Your task to perform on an android device: set an alarm Image 0: 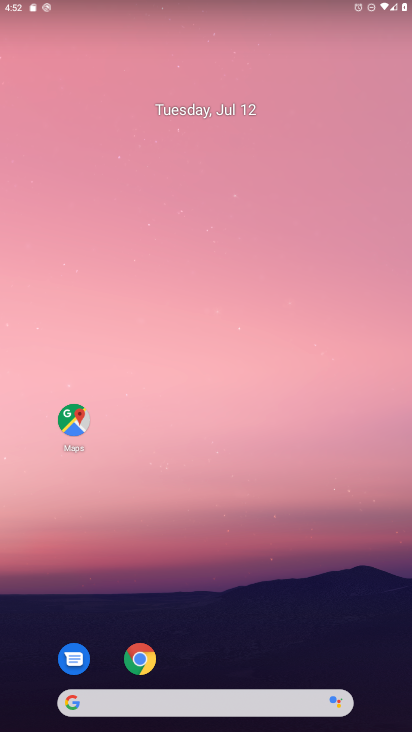
Step 0: drag from (260, 256) to (254, 3)
Your task to perform on an android device: set an alarm Image 1: 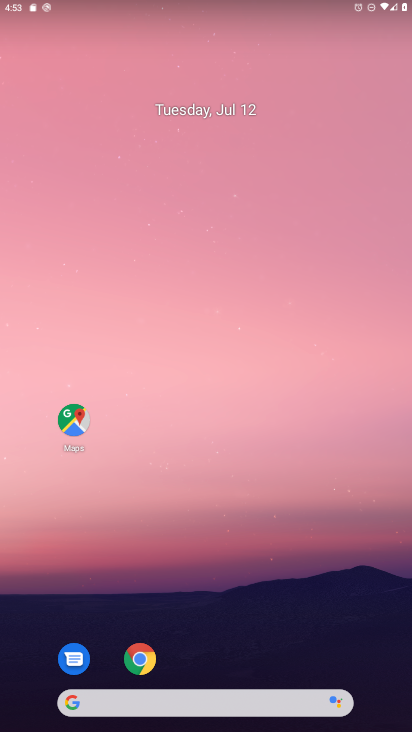
Step 1: drag from (206, 569) to (128, 49)
Your task to perform on an android device: set an alarm Image 2: 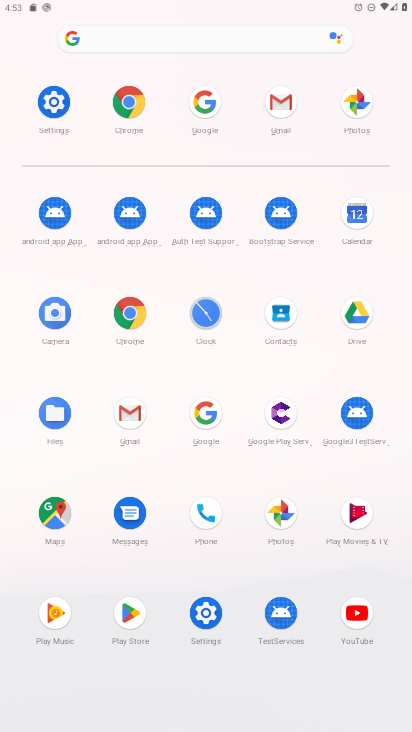
Step 2: click (201, 335)
Your task to perform on an android device: set an alarm Image 3: 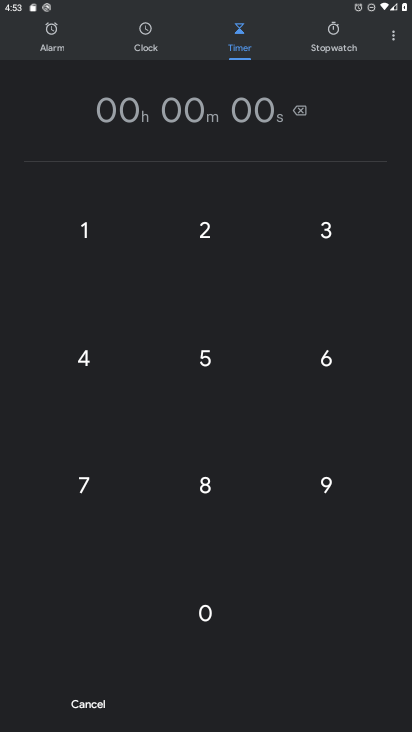
Step 3: click (49, 55)
Your task to perform on an android device: set an alarm Image 4: 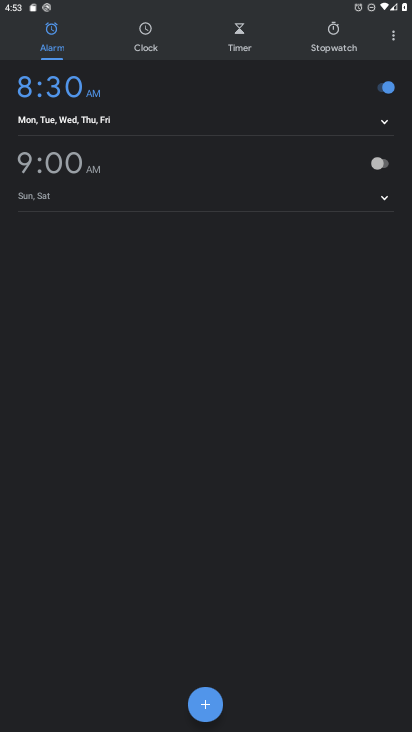
Step 4: click (393, 170)
Your task to perform on an android device: set an alarm Image 5: 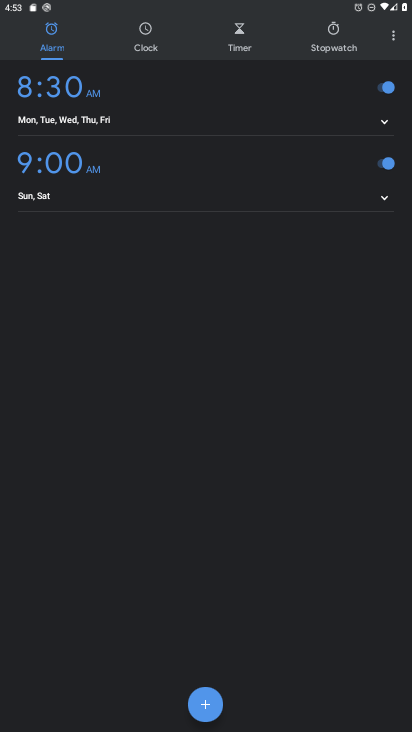
Step 5: task complete